Your task to perform on an android device: Open accessibility settings Image 0: 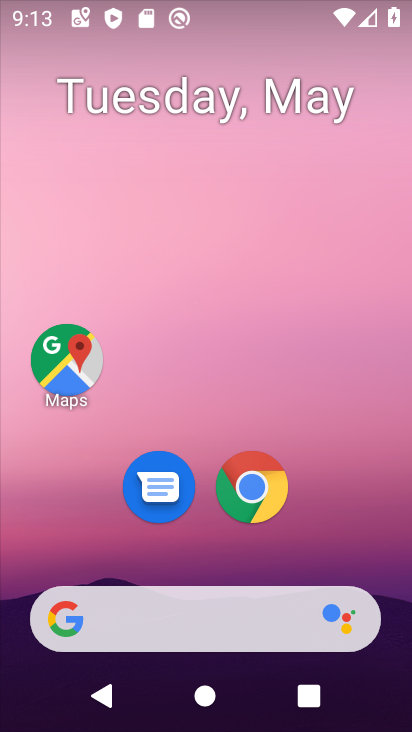
Step 0: drag from (356, 541) to (355, 305)
Your task to perform on an android device: Open accessibility settings Image 1: 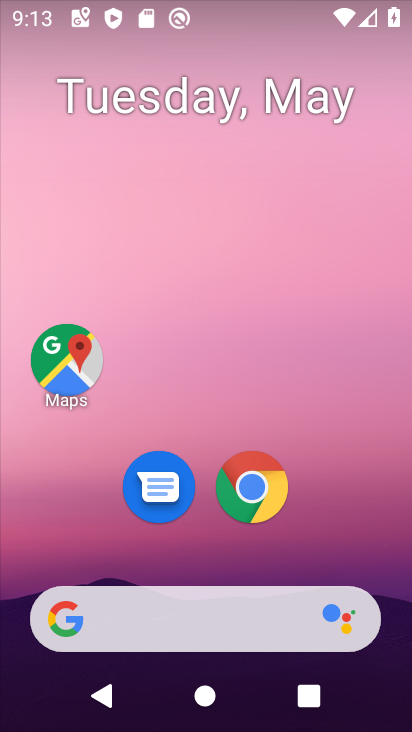
Step 1: drag from (372, 549) to (363, 230)
Your task to perform on an android device: Open accessibility settings Image 2: 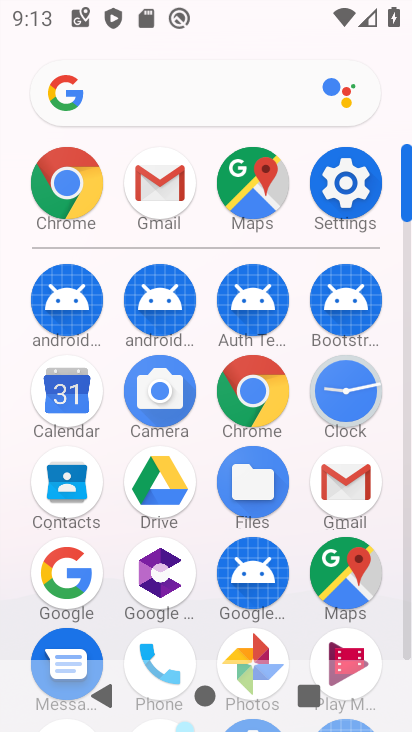
Step 2: click (364, 203)
Your task to perform on an android device: Open accessibility settings Image 3: 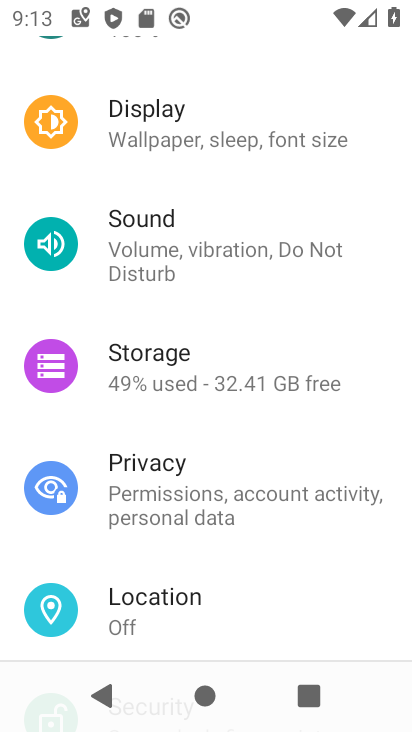
Step 3: drag from (357, 201) to (370, 349)
Your task to perform on an android device: Open accessibility settings Image 4: 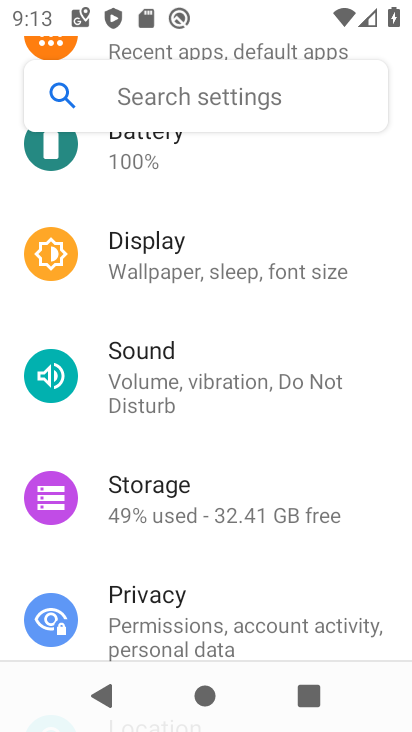
Step 4: drag from (336, 175) to (353, 324)
Your task to perform on an android device: Open accessibility settings Image 5: 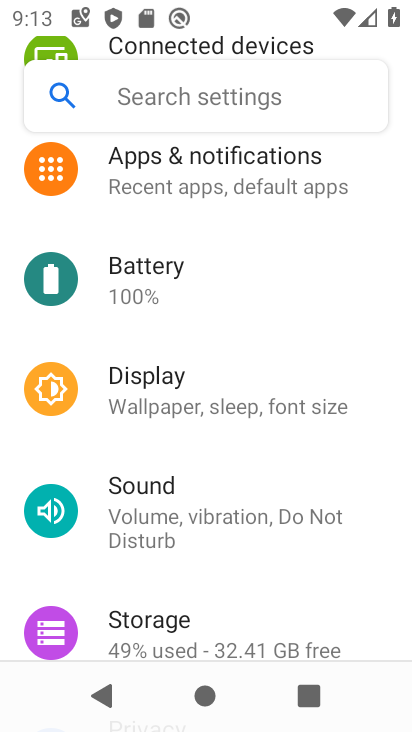
Step 5: drag from (368, 164) to (378, 332)
Your task to perform on an android device: Open accessibility settings Image 6: 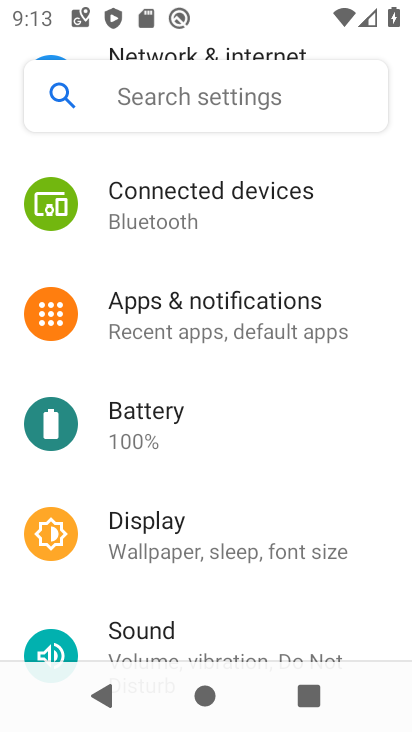
Step 6: drag from (351, 181) to (371, 317)
Your task to perform on an android device: Open accessibility settings Image 7: 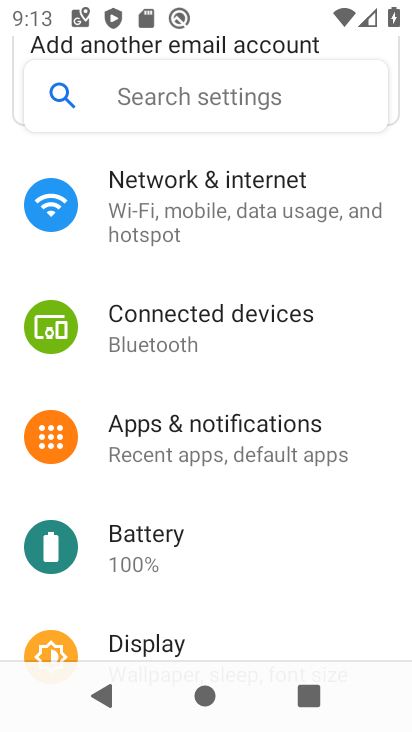
Step 7: drag from (349, 268) to (371, 393)
Your task to perform on an android device: Open accessibility settings Image 8: 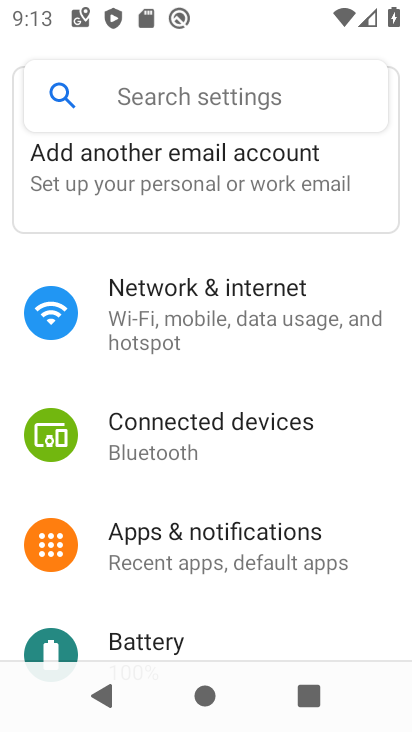
Step 8: drag from (344, 495) to (351, 391)
Your task to perform on an android device: Open accessibility settings Image 9: 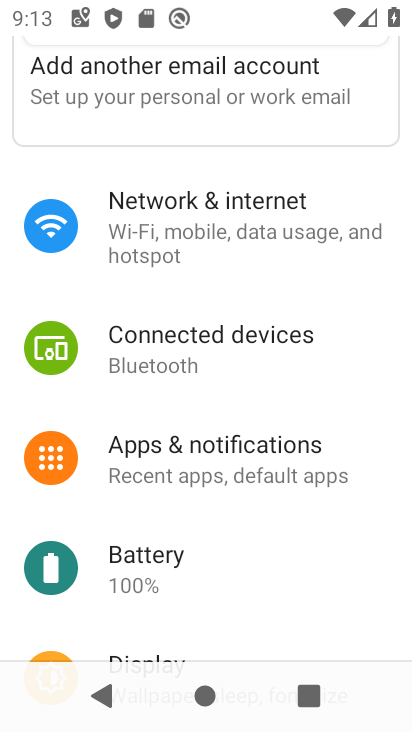
Step 9: drag from (347, 534) to (353, 451)
Your task to perform on an android device: Open accessibility settings Image 10: 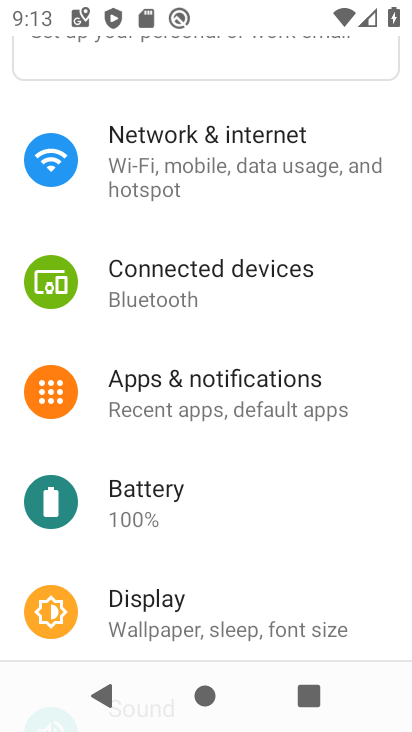
Step 10: drag from (349, 521) to (368, 343)
Your task to perform on an android device: Open accessibility settings Image 11: 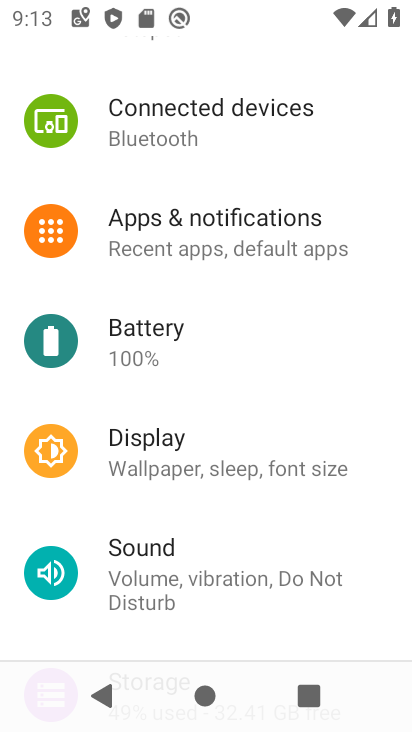
Step 11: drag from (359, 536) to (359, 407)
Your task to perform on an android device: Open accessibility settings Image 12: 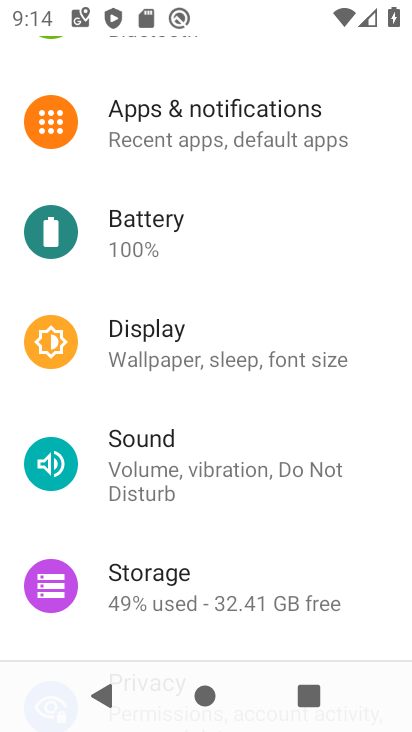
Step 12: drag from (319, 521) to (336, 381)
Your task to perform on an android device: Open accessibility settings Image 13: 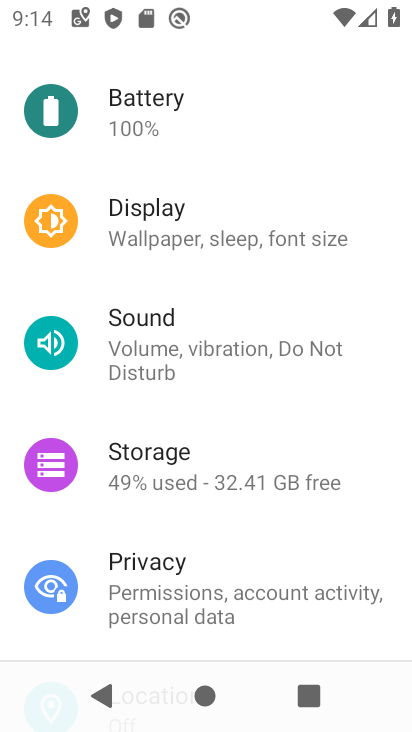
Step 13: drag from (310, 519) to (327, 352)
Your task to perform on an android device: Open accessibility settings Image 14: 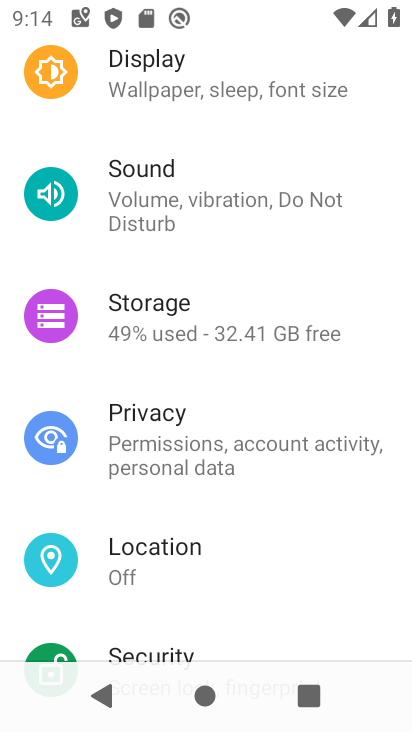
Step 14: drag from (315, 562) to (320, 357)
Your task to perform on an android device: Open accessibility settings Image 15: 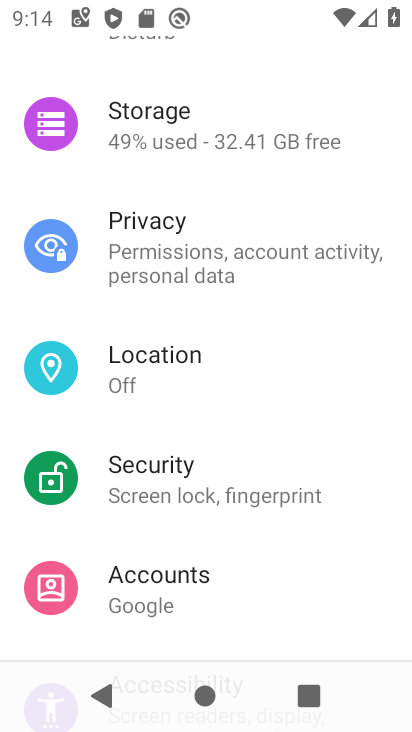
Step 15: drag from (344, 565) to (341, 388)
Your task to perform on an android device: Open accessibility settings Image 16: 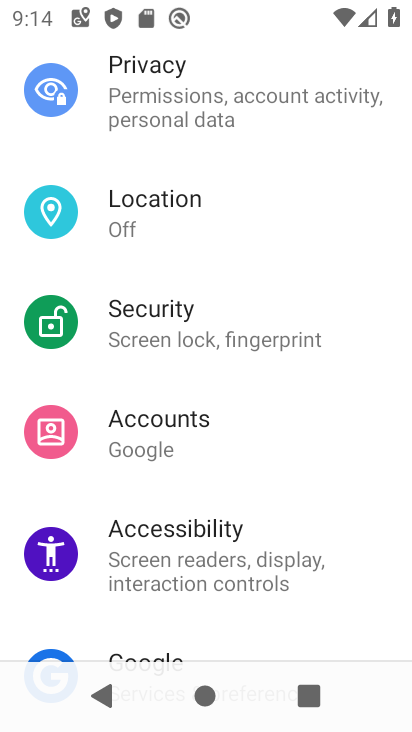
Step 16: drag from (348, 589) to (353, 419)
Your task to perform on an android device: Open accessibility settings Image 17: 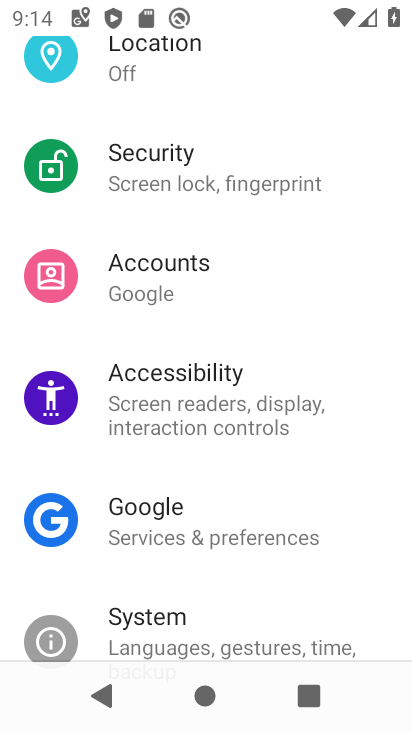
Step 17: click (283, 419)
Your task to perform on an android device: Open accessibility settings Image 18: 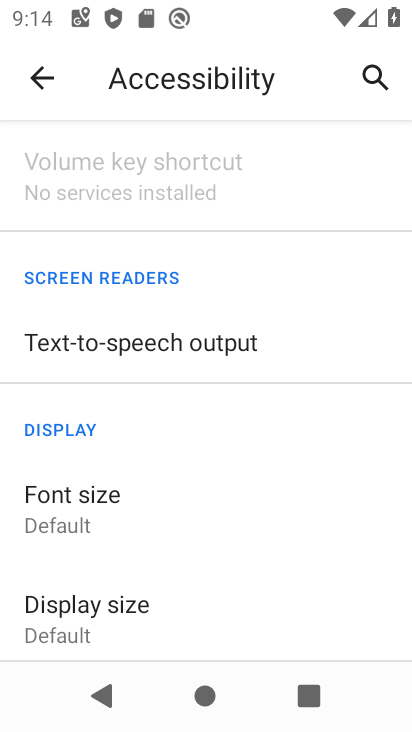
Step 18: task complete